Your task to perform on an android device: change notifications settings Image 0: 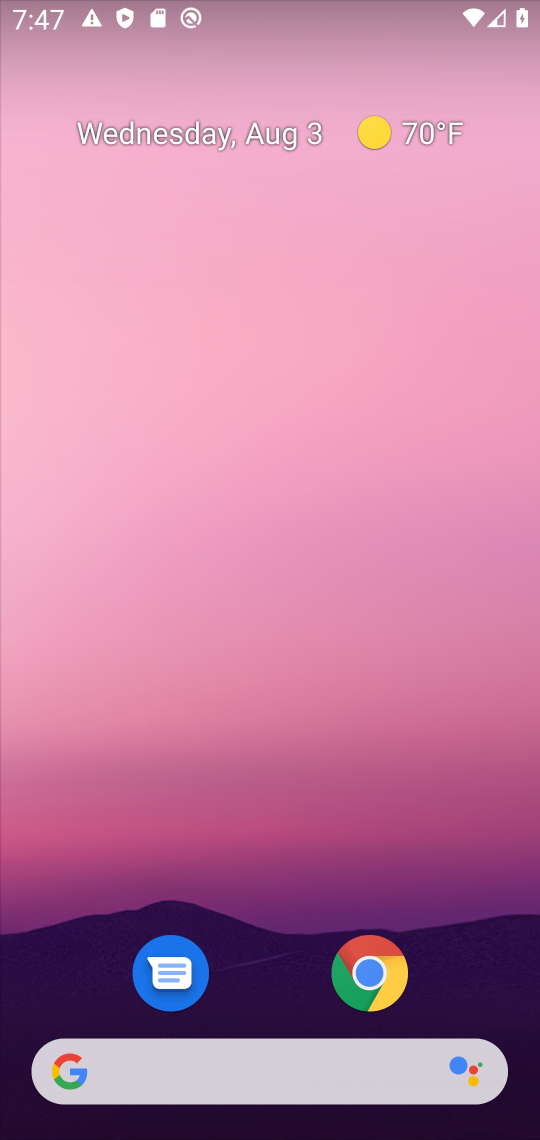
Step 0: press home button
Your task to perform on an android device: change notifications settings Image 1: 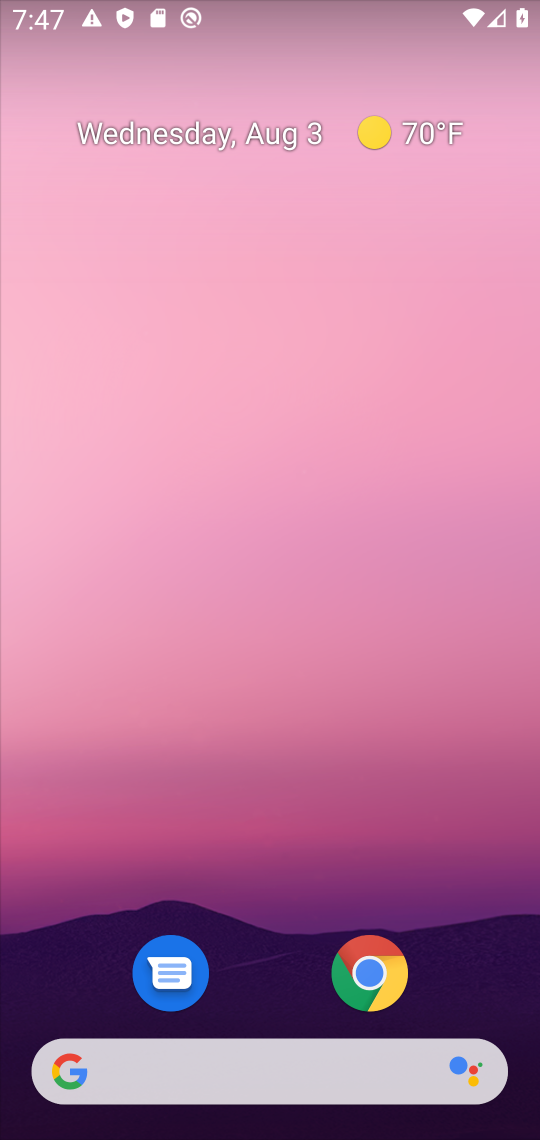
Step 1: drag from (269, 1008) to (198, 285)
Your task to perform on an android device: change notifications settings Image 2: 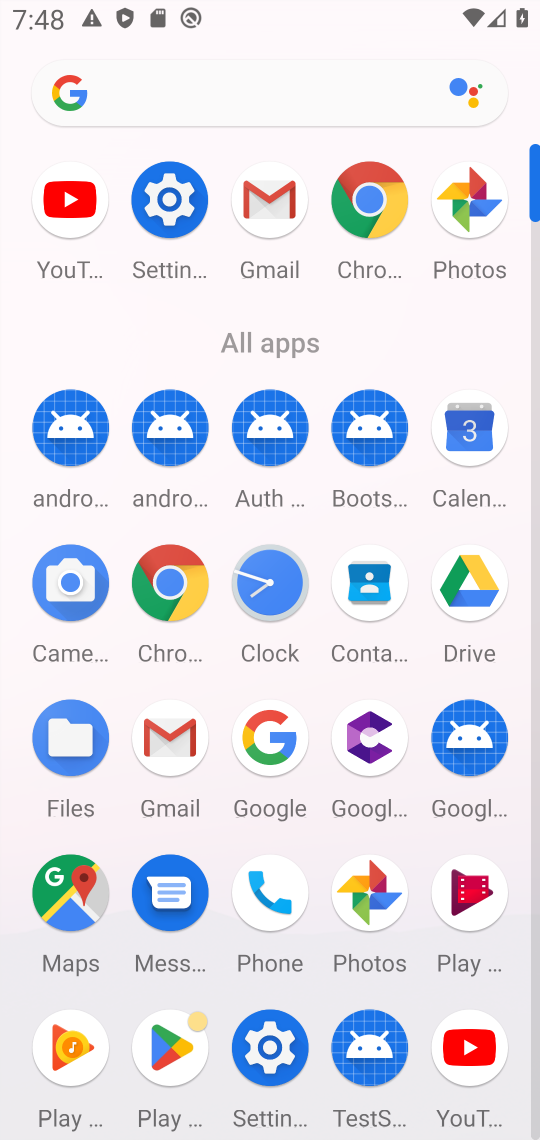
Step 2: click (265, 1037)
Your task to perform on an android device: change notifications settings Image 3: 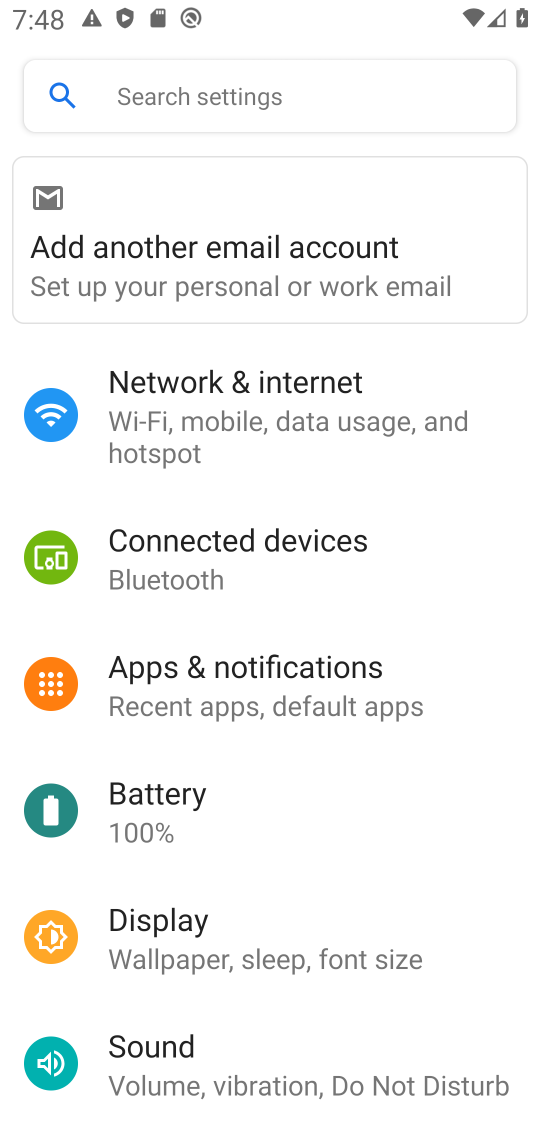
Step 3: click (271, 684)
Your task to perform on an android device: change notifications settings Image 4: 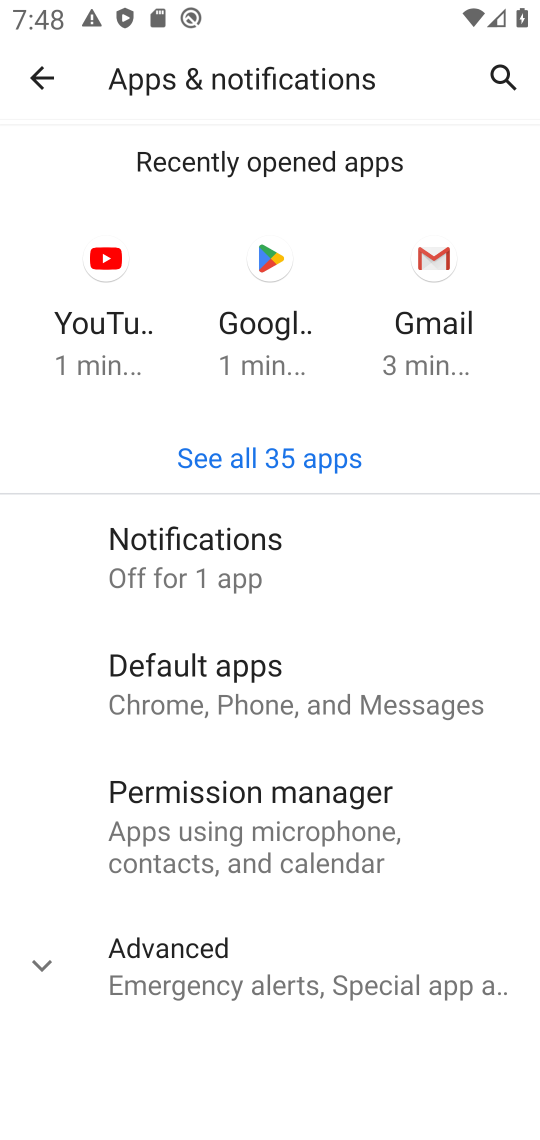
Step 4: click (230, 561)
Your task to perform on an android device: change notifications settings Image 5: 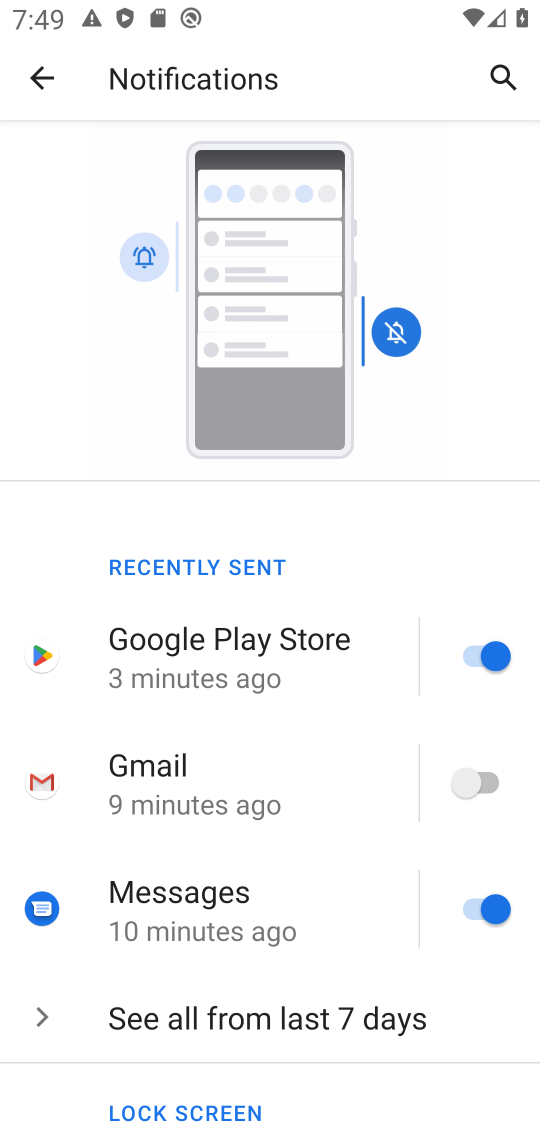
Step 5: drag from (266, 1047) to (302, 470)
Your task to perform on an android device: change notifications settings Image 6: 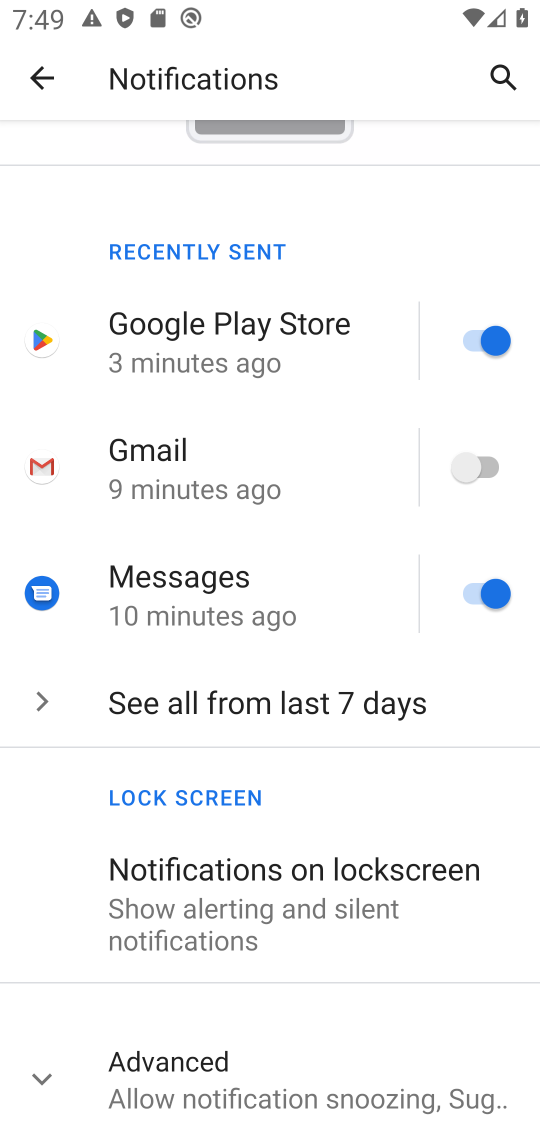
Step 6: click (38, 1069)
Your task to perform on an android device: change notifications settings Image 7: 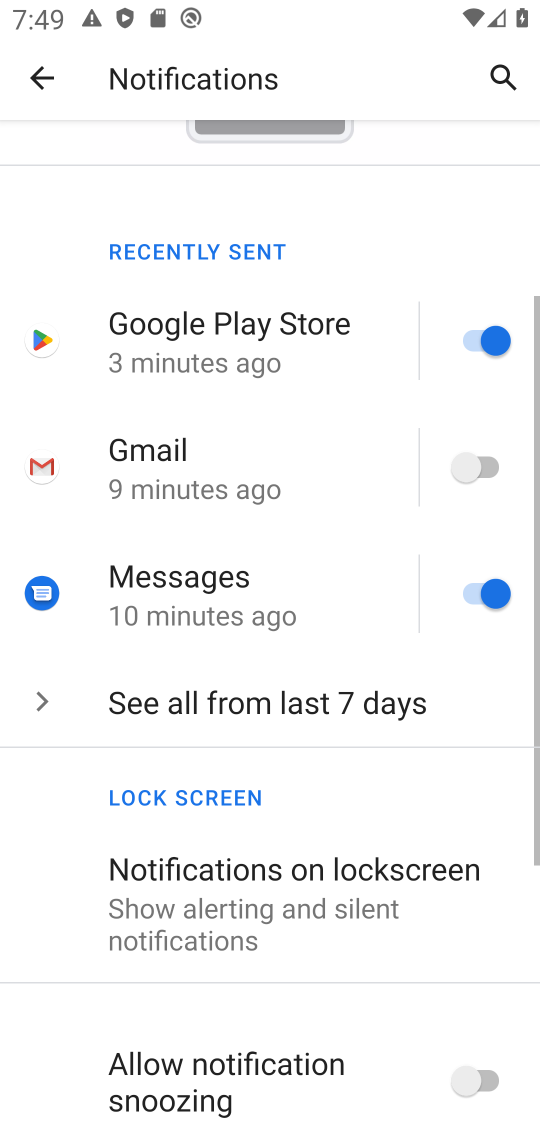
Step 7: drag from (226, 995) to (254, 534)
Your task to perform on an android device: change notifications settings Image 8: 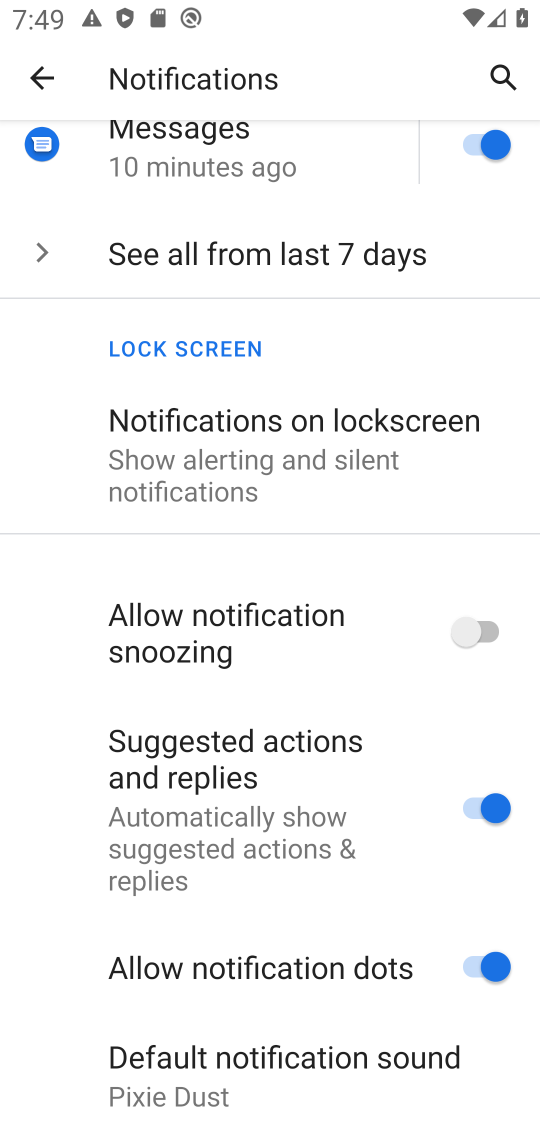
Step 8: click (473, 807)
Your task to perform on an android device: change notifications settings Image 9: 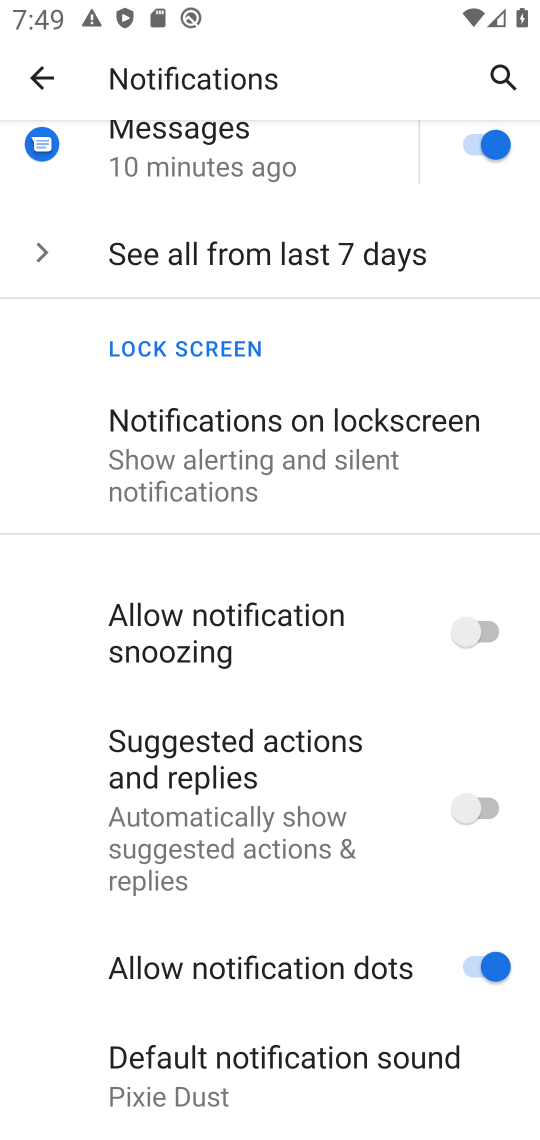
Step 9: click (483, 961)
Your task to perform on an android device: change notifications settings Image 10: 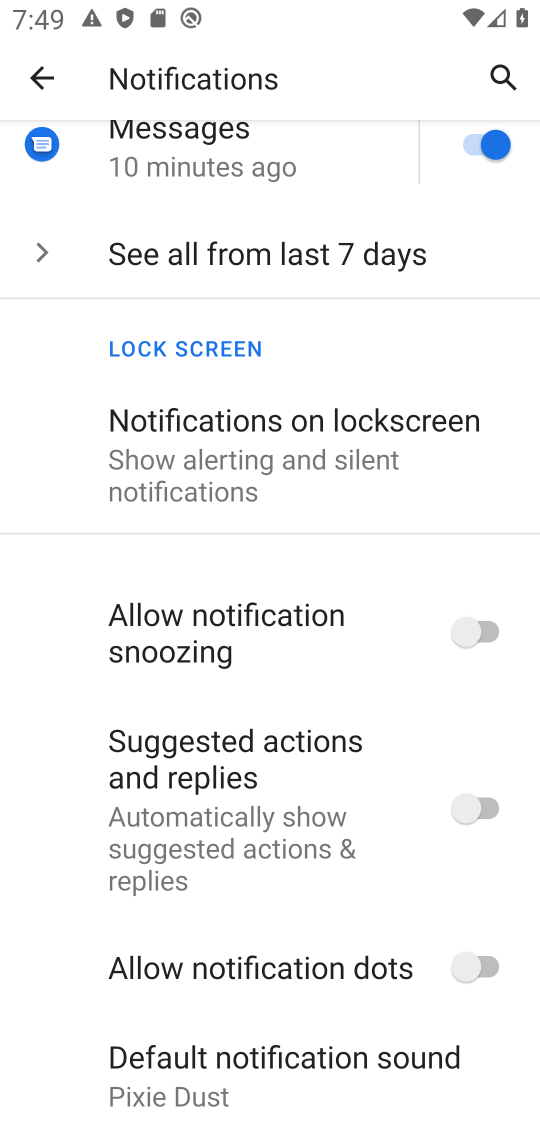
Step 10: task complete